Your task to perform on an android device: What is the recent news? Image 0: 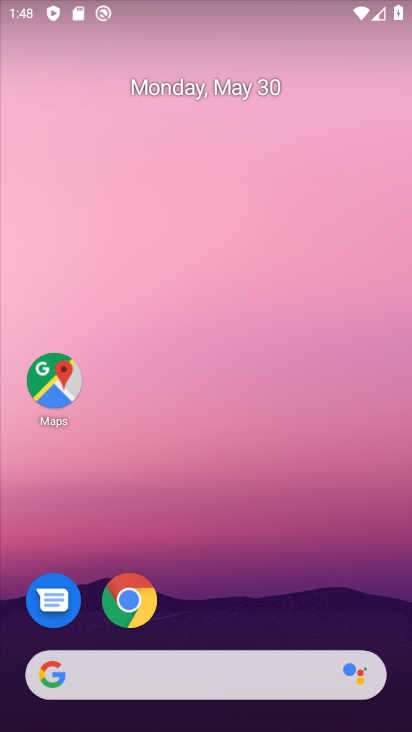
Step 0: click (230, 673)
Your task to perform on an android device: What is the recent news? Image 1: 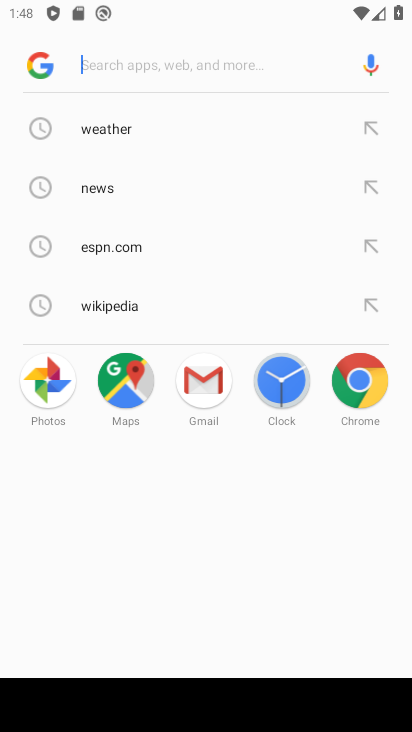
Step 1: type "recent news"
Your task to perform on an android device: What is the recent news? Image 2: 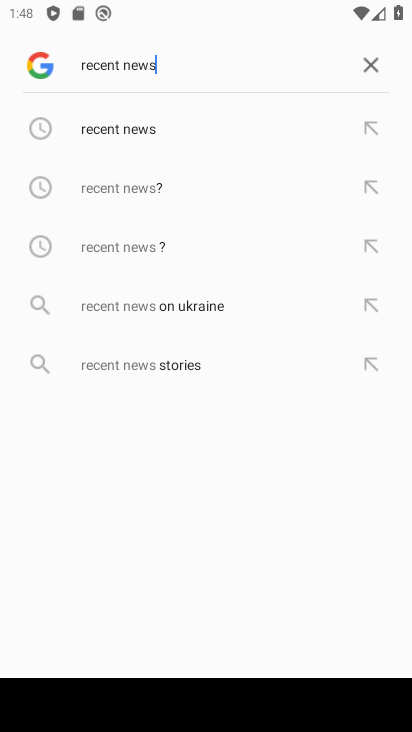
Step 2: click (110, 118)
Your task to perform on an android device: What is the recent news? Image 3: 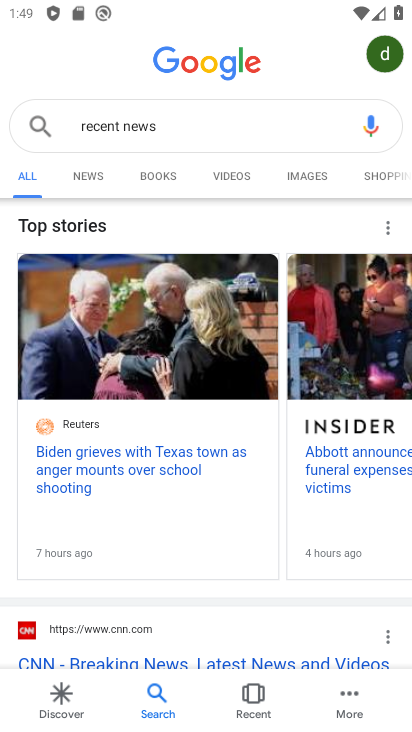
Step 3: click (110, 118)
Your task to perform on an android device: What is the recent news? Image 4: 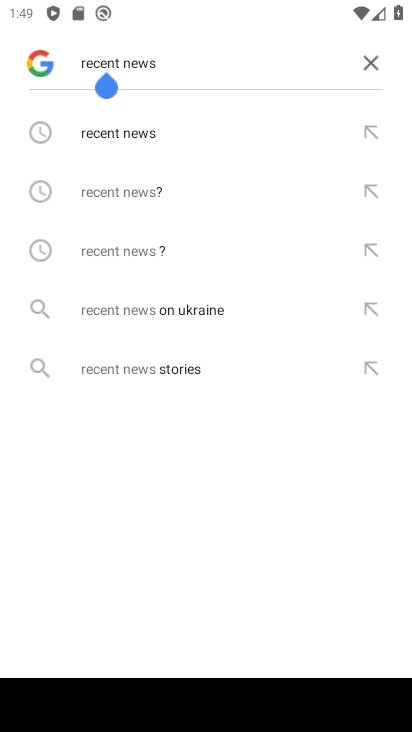
Step 4: click (138, 126)
Your task to perform on an android device: What is the recent news? Image 5: 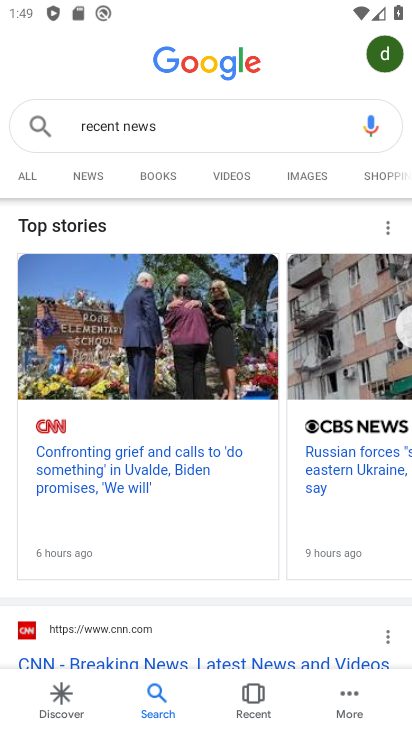
Step 5: click (93, 167)
Your task to perform on an android device: What is the recent news? Image 6: 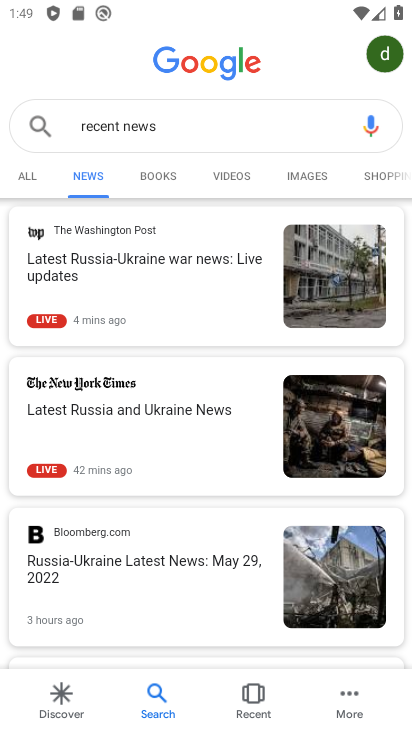
Step 6: task complete